Your task to perform on an android device: Search for vegetarian restaurants on Maps Image 0: 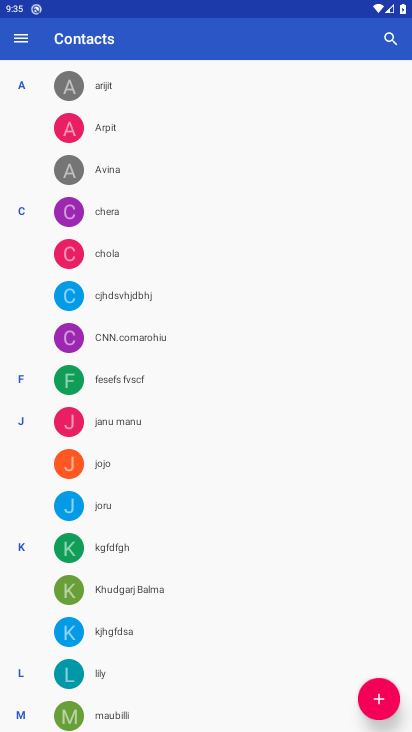
Step 0: press home button
Your task to perform on an android device: Search for vegetarian restaurants on Maps Image 1: 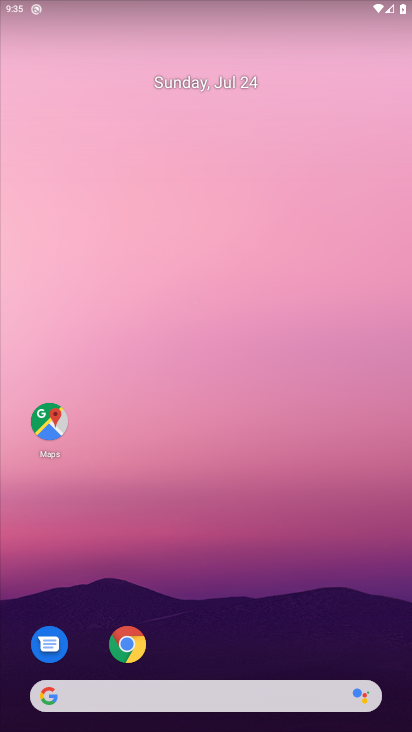
Step 1: drag from (214, 635) to (385, 398)
Your task to perform on an android device: Search for vegetarian restaurants on Maps Image 2: 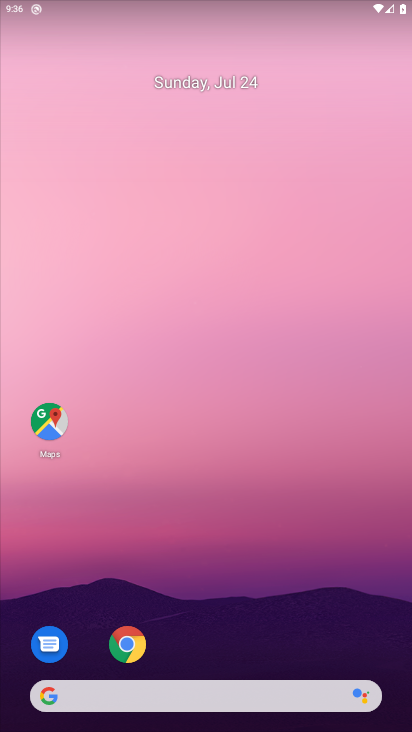
Step 2: click (48, 411)
Your task to perform on an android device: Search for vegetarian restaurants on Maps Image 3: 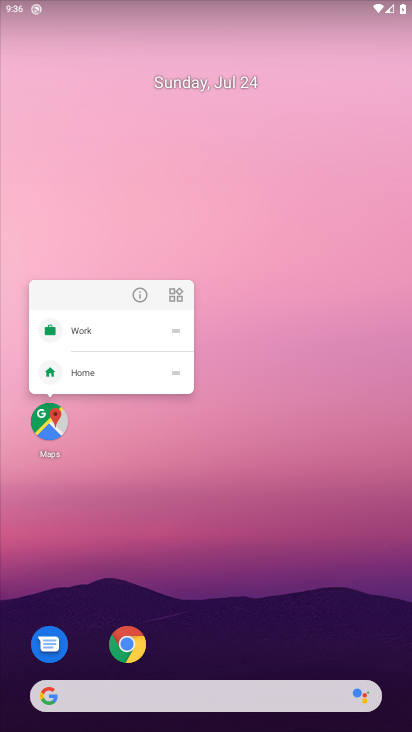
Step 3: click (51, 417)
Your task to perform on an android device: Search for vegetarian restaurants on Maps Image 4: 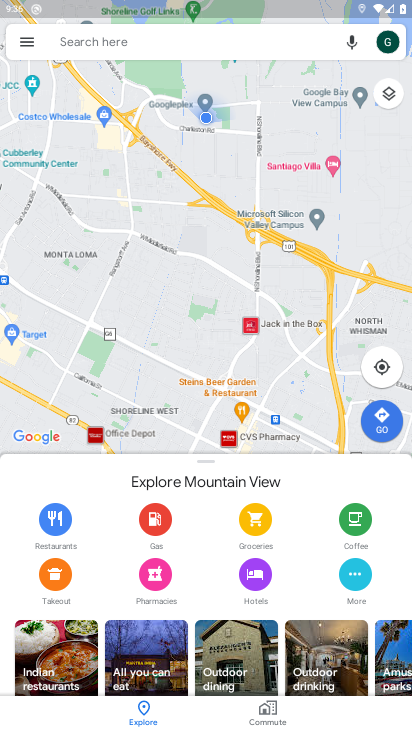
Step 4: click (120, 32)
Your task to perform on an android device: Search for vegetarian restaurants on Maps Image 5: 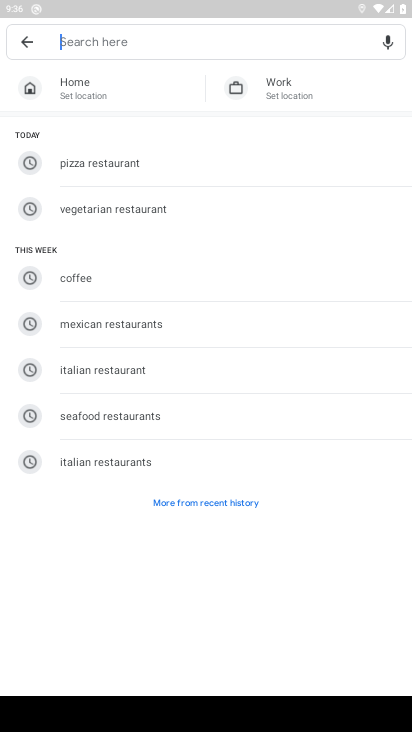
Step 5: type "vegetarian restaurants"
Your task to perform on an android device: Search for vegetarian restaurants on Maps Image 6: 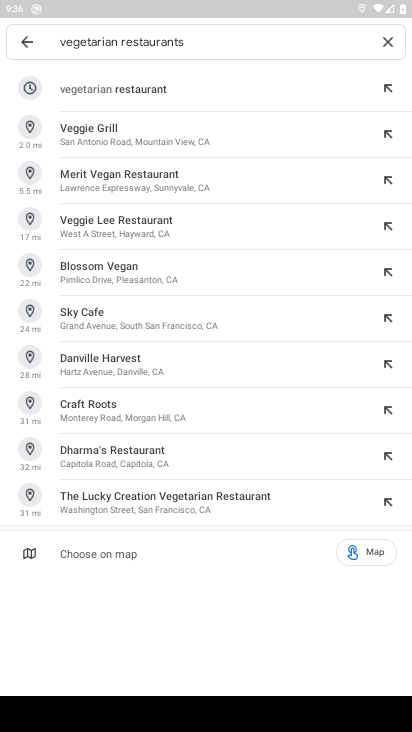
Step 6: click (117, 94)
Your task to perform on an android device: Search for vegetarian restaurants on Maps Image 7: 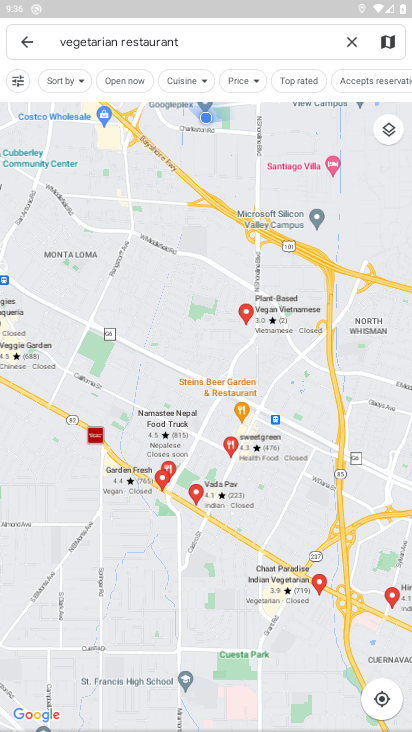
Step 7: task complete